Your task to perform on an android device: turn on data saver in the chrome app Image 0: 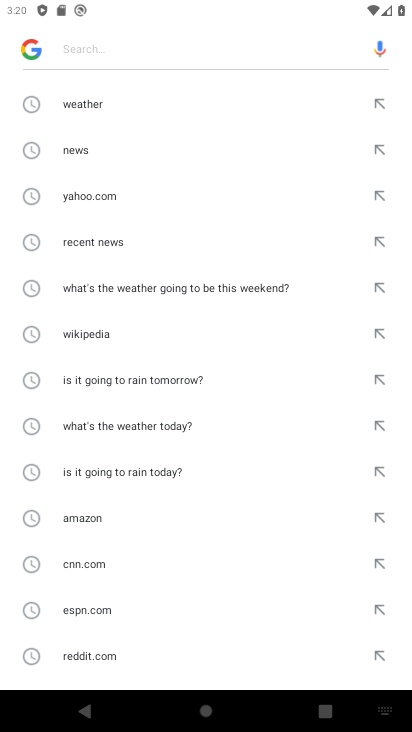
Step 0: press home button
Your task to perform on an android device: turn on data saver in the chrome app Image 1: 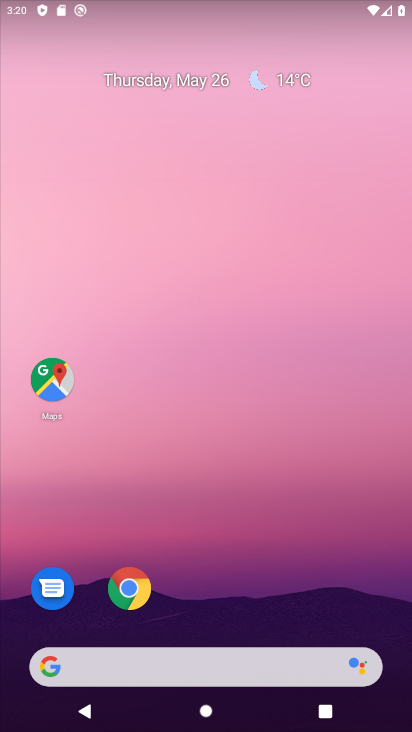
Step 1: click (148, 578)
Your task to perform on an android device: turn on data saver in the chrome app Image 2: 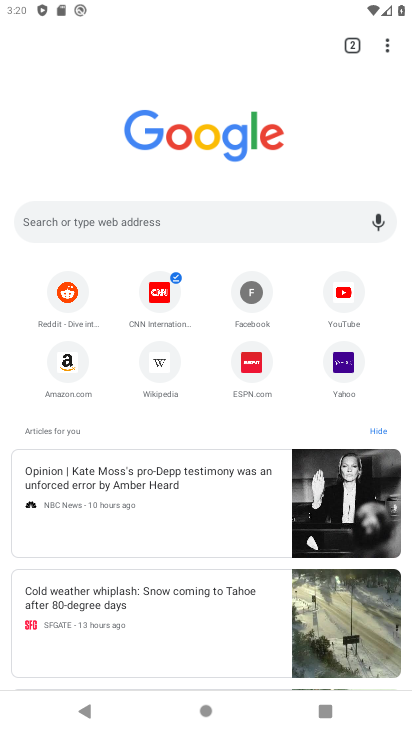
Step 2: click (383, 54)
Your task to perform on an android device: turn on data saver in the chrome app Image 3: 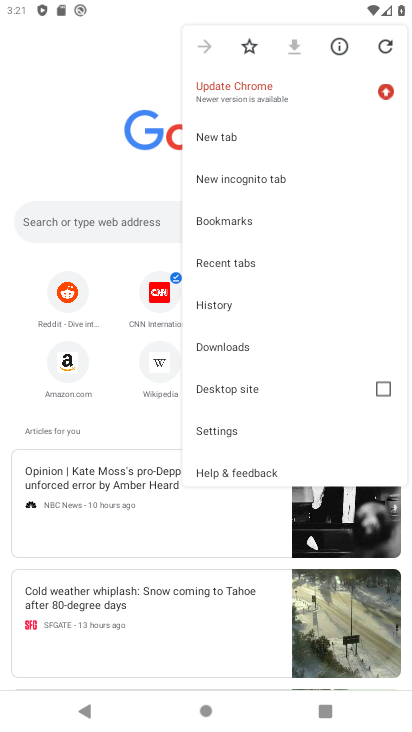
Step 3: click (230, 433)
Your task to perform on an android device: turn on data saver in the chrome app Image 4: 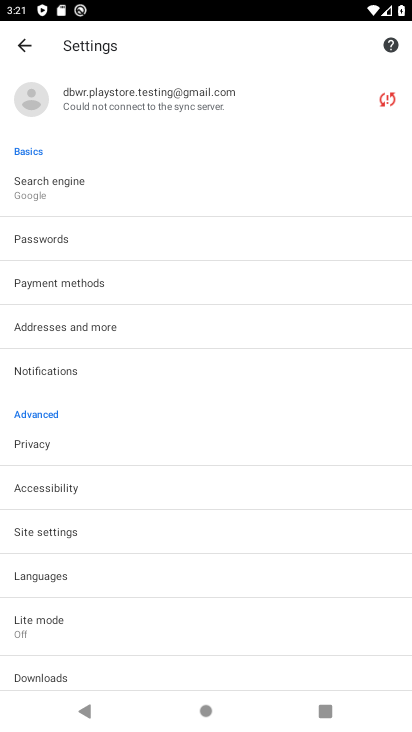
Step 4: click (109, 645)
Your task to perform on an android device: turn on data saver in the chrome app Image 5: 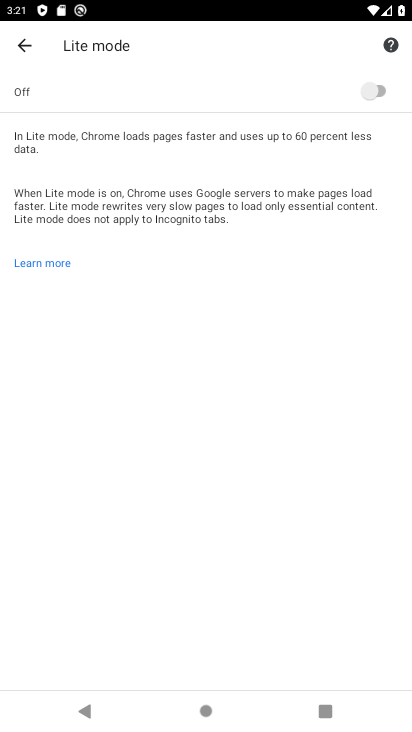
Step 5: click (383, 90)
Your task to perform on an android device: turn on data saver in the chrome app Image 6: 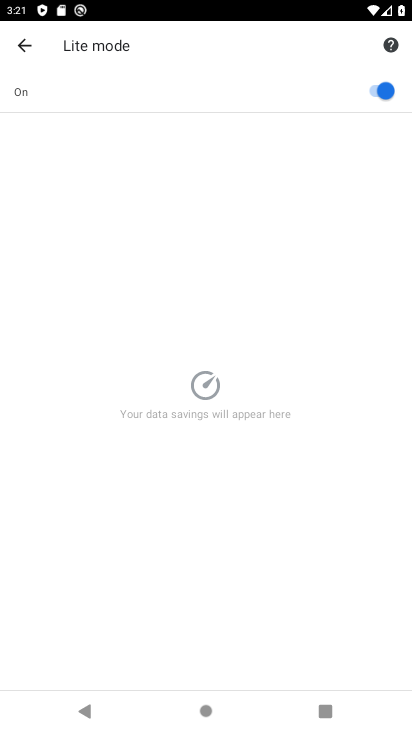
Step 6: task complete